Your task to perform on an android device: Go to internet settings Image 0: 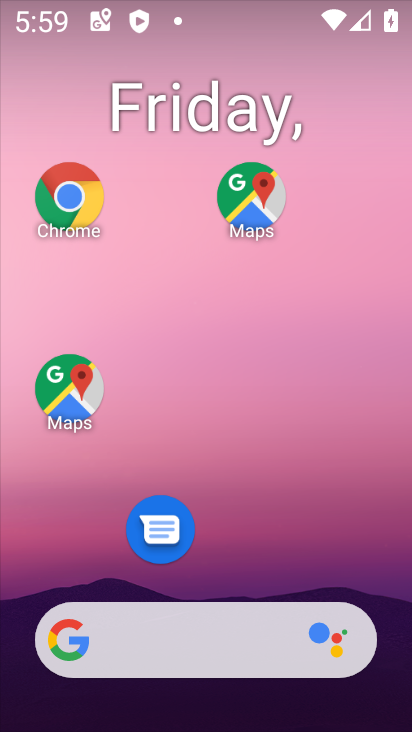
Step 0: drag from (233, 534) to (271, 28)
Your task to perform on an android device: Go to internet settings Image 1: 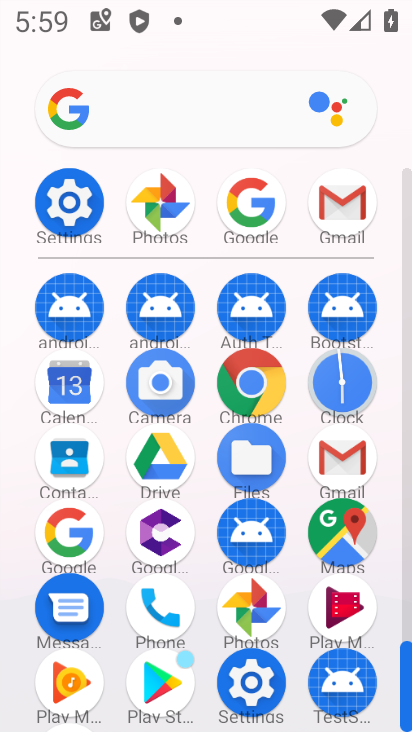
Step 1: click (58, 210)
Your task to perform on an android device: Go to internet settings Image 2: 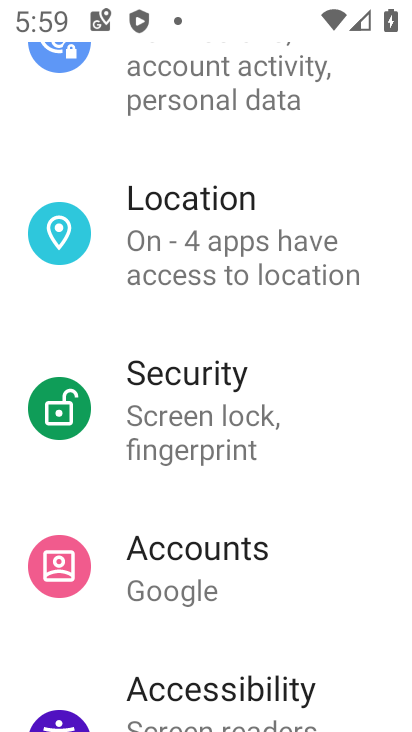
Step 2: drag from (182, 319) to (158, 395)
Your task to perform on an android device: Go to internet settings Image 3: 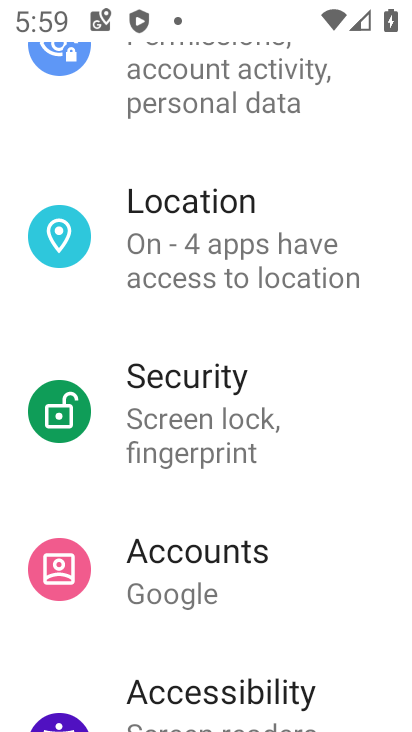
Step 3: drag from (227, 158) to (182, 399)
Your task to perform on an android device: Go to internet settings Image 4: 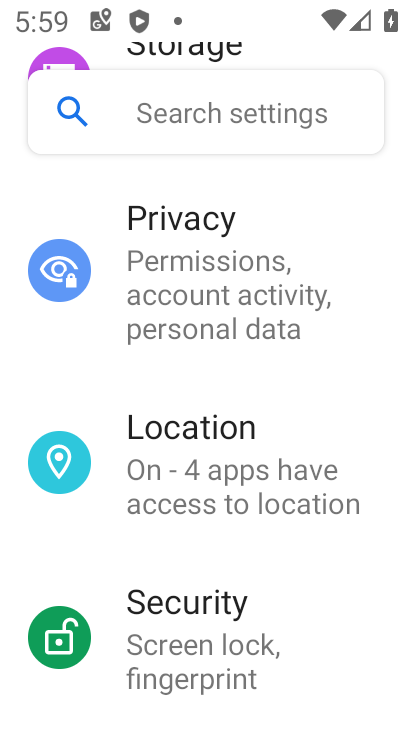
Step 4: drag from (212, 194) to (189, 357)
Your task to perform on an android device: Go to internet settings Image 5: 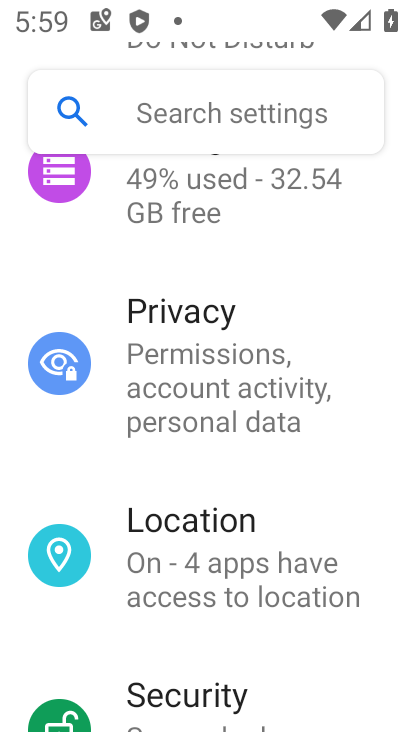
Step 5: drag from (250, 253) to (223, 509)
Your task to perform on an android device: Go to internet settings Image 6: 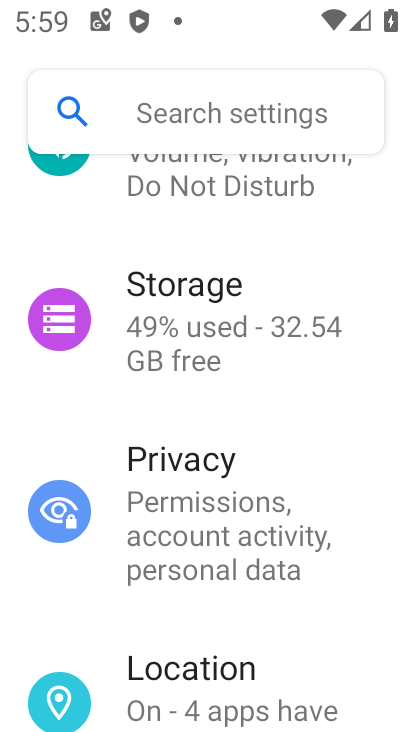
Step 6: drag from (259, 224) to (220, 492)
Your task to perform on an android device: Go to internet settings Image 7: 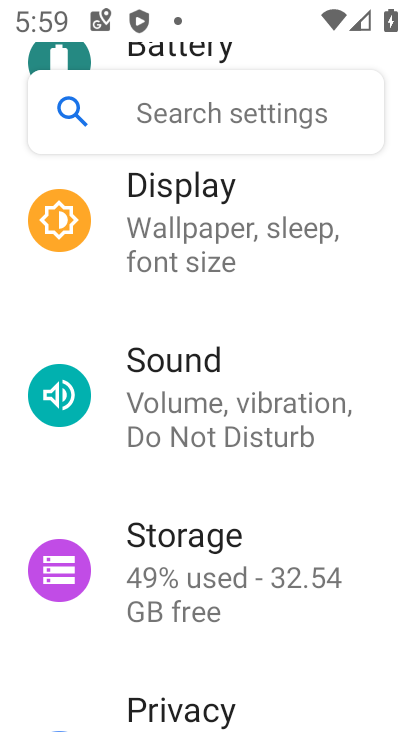
Step 7: drag from (234, 215) to (211, 562)
Your task to perform on an android device: Go to internet settings Image 8: 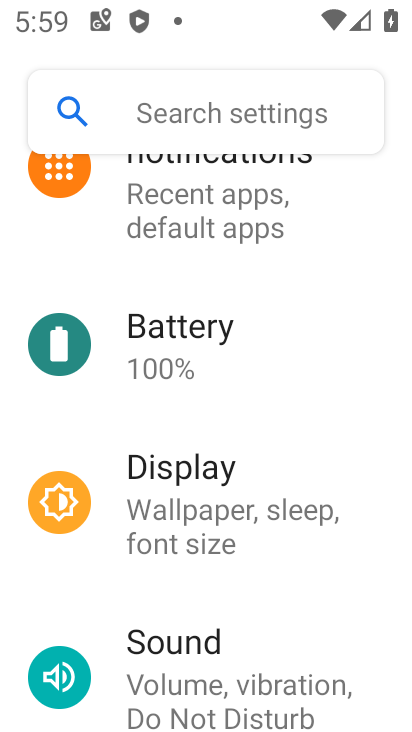
Step 8: drag from (242, 239) to (200, 628)
Your task to perform on an android device: Go to internet settings Image 9: 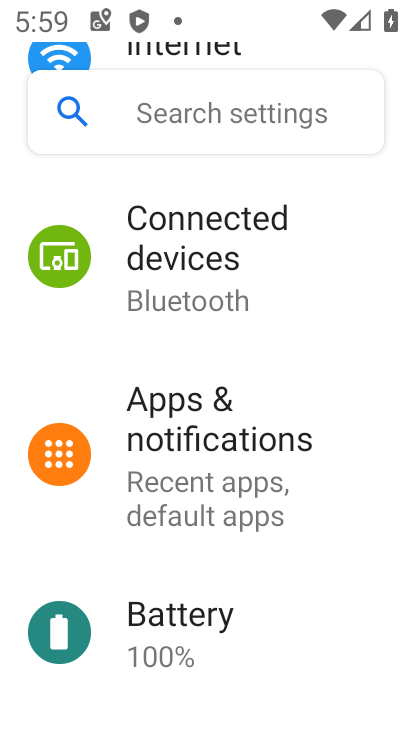
Step 9: drag from (247, 228) to (230, 592)
Your task to perform on an android device: Go to internet settings Image 10: 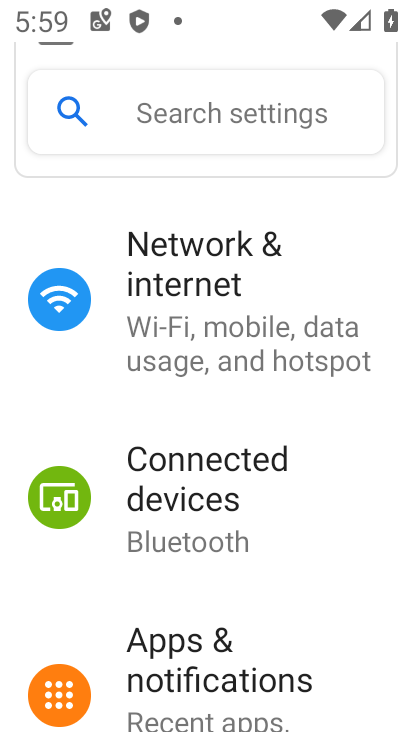
Step 10: click (194, 303)
Your task to perform on an android device: Go to internet settings Image 11: 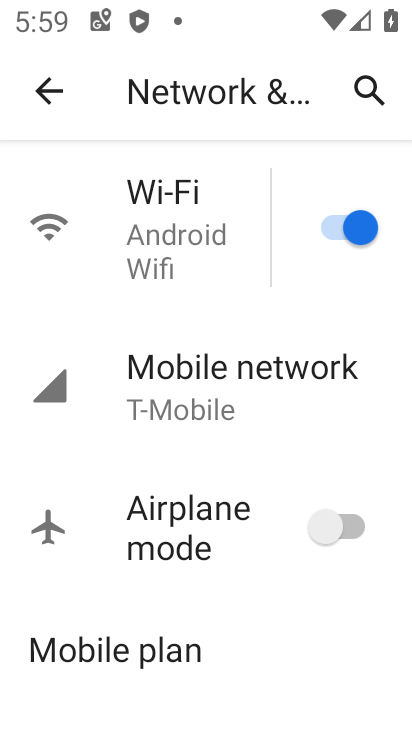
Step 11: task complete